Your task to perform on an android device: Is it going to rain today? Image 0: 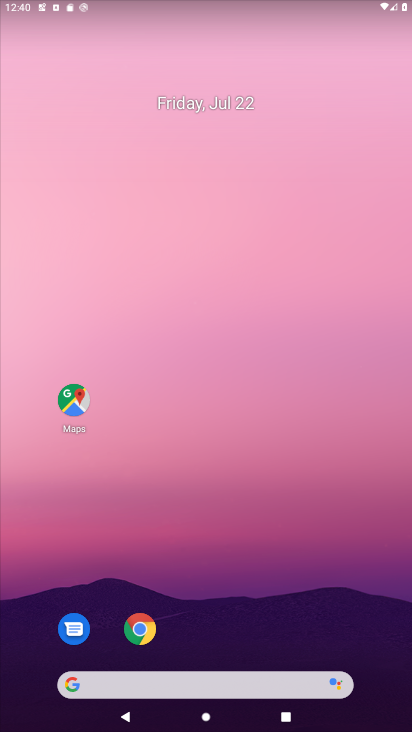
Step 0: drag from (298, 622) to (256, 174)
Your task to perform on an android device: Is it going to rain today? Image 1: 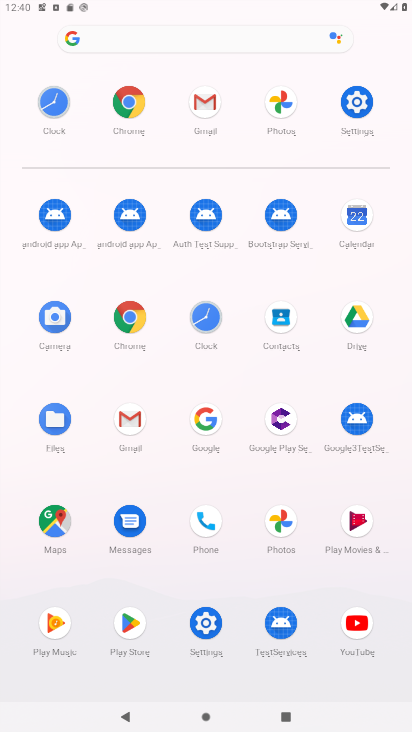
Step 1: click (130, 318)
Your task to perform on an android device: Is it going to rain today? Image 2: 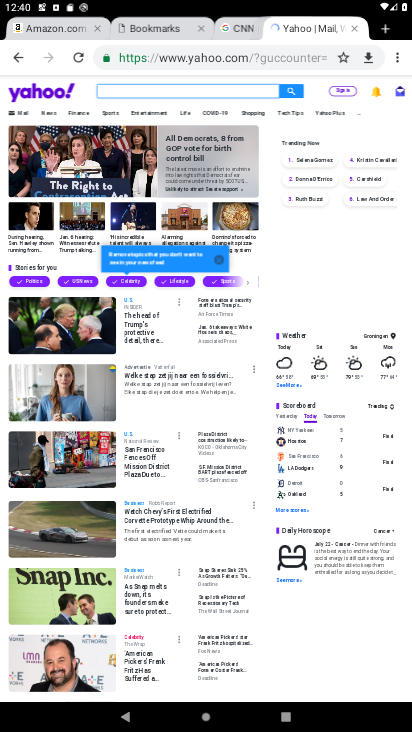
Step 2: click (380, 28)
Your task to perform on an android device: Is it going to rain today? Image 3: 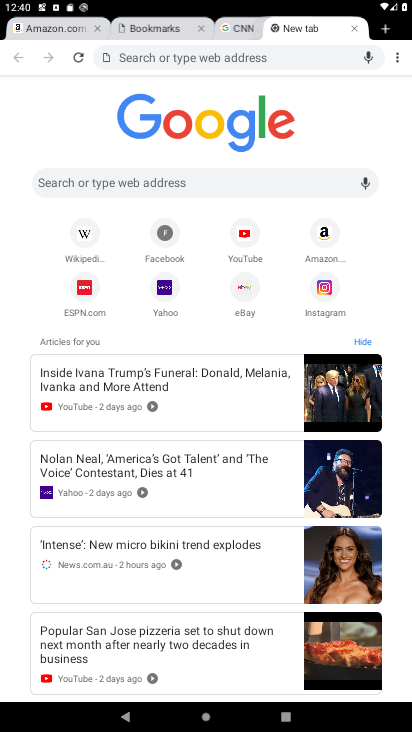
Step 3: click (213, 185)
Your task to perform on an android device: Is it going to rain today? Image 4: 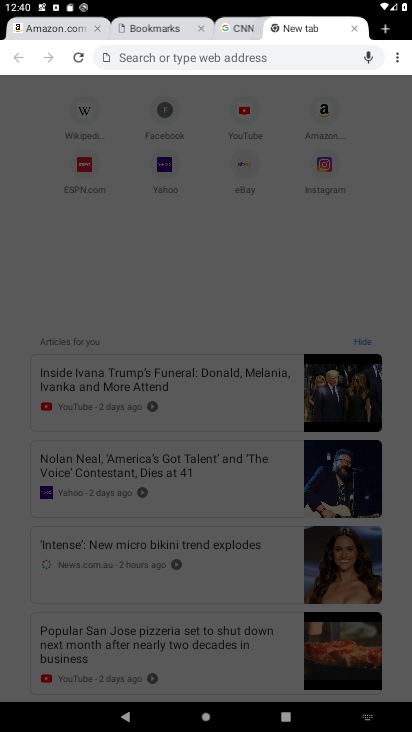
Step 4: type "weather"
Your task to perform on an android device: Is it going to rain today? Image 5: 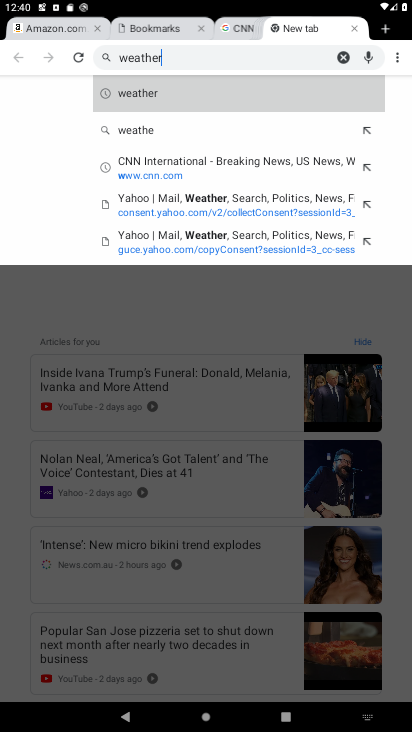
Step 5: type ""
Your task to perform on an android device: Is it going to rain today? Image 6: 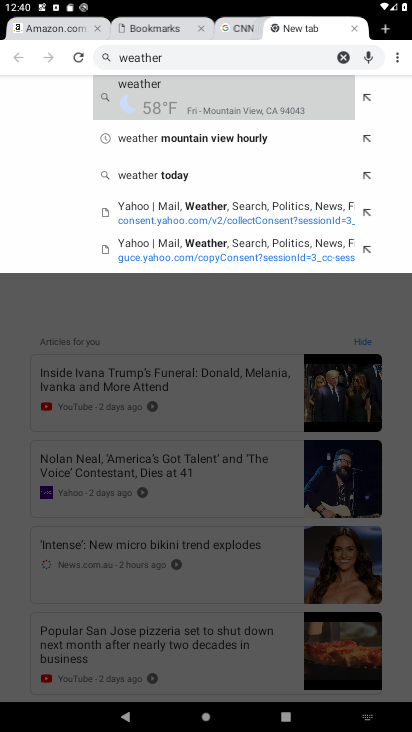
Step 6: click (166, 101)
Your task to perform on an android device: Is it going to rain today? Image 7: 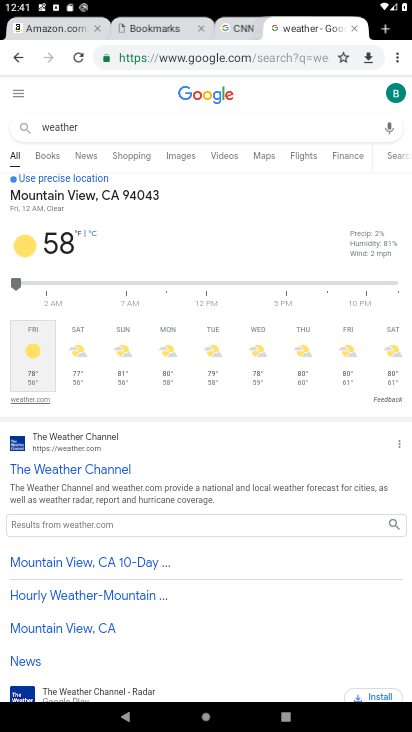
Step 7: task complete